Your task to perform on an android device: clear all cookies in the chrome app Image 0: 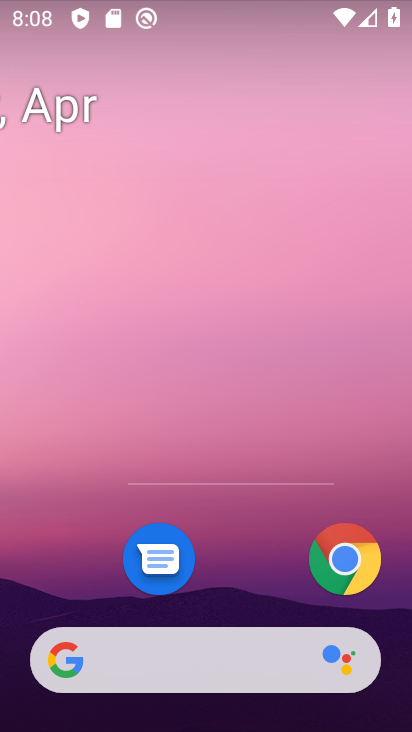
Step 0: drag from (187, 699) to (199, 157)
Your task to perform on an android device: clear all cookies in the chrome app Image 1: 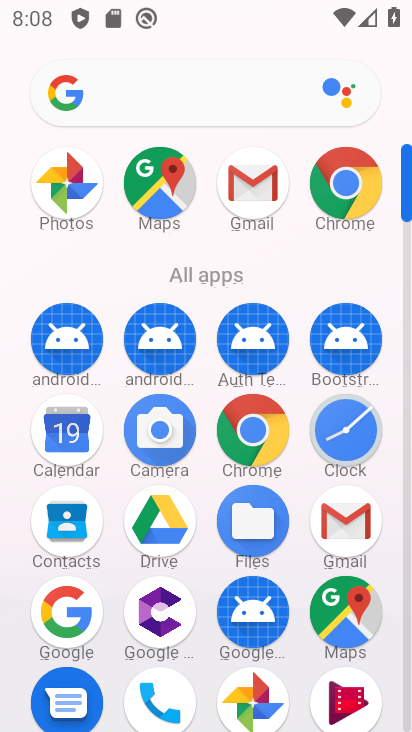
Step 1: click (347, 197)
Your task to perform on an android device: clear all cookies in the chrome app Image 2: 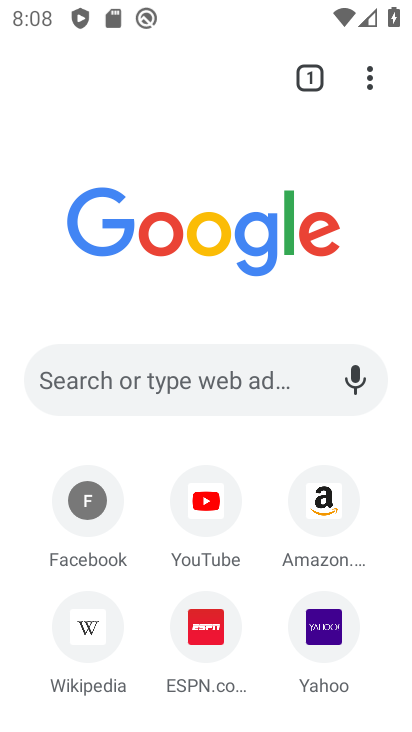
Step 2: click (369, 77)
Your task to perform on an android device: clear all cookies in the chrome app Image 3: 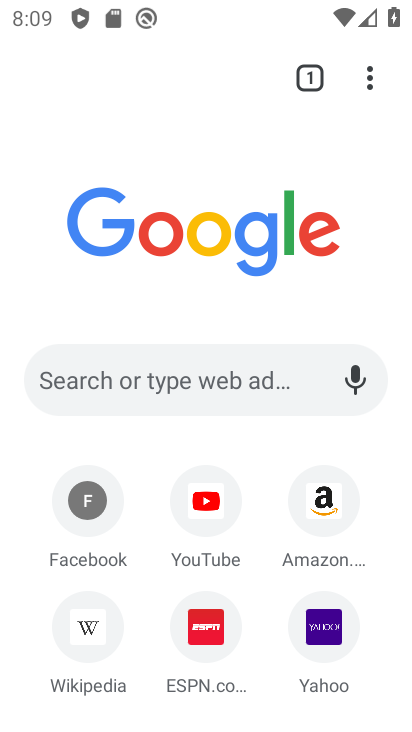
Step 3: click (370, 77)
Your task to perform on an android device: clear all cookies in the chrome app Image 4: 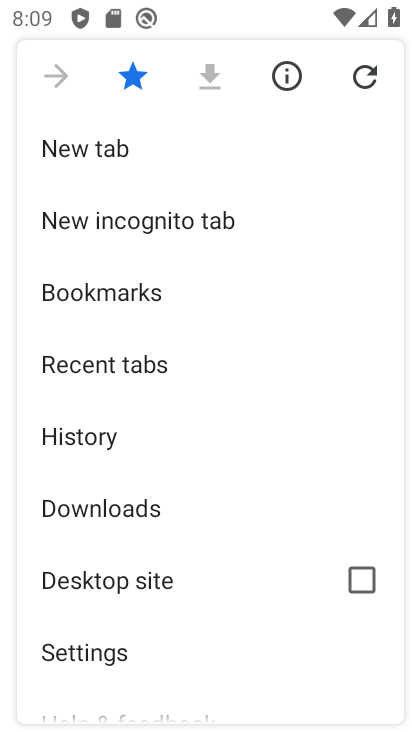
Step 4: click (106, 431)
Your task to perform on an android device: clear all cookies in the chrome app Image 5: 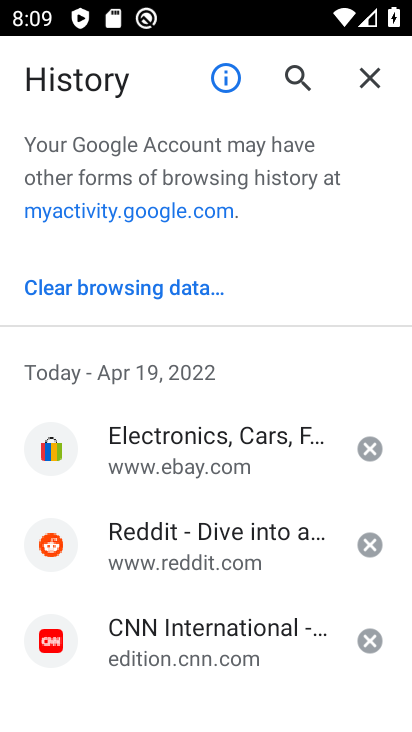
Step 5: click (112, 294)
Your task to perform on an android device: clear all cookies in the chrome app Image 6: 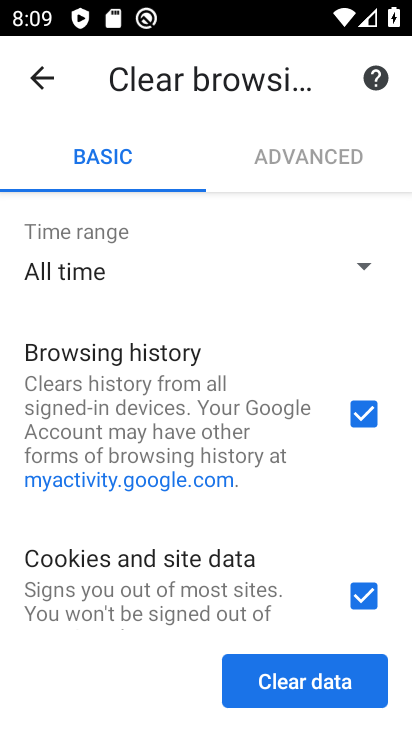
Step 6: click (357, 421)
Your task to perform on an android device: clear all cookies in the chrome app Image 7: 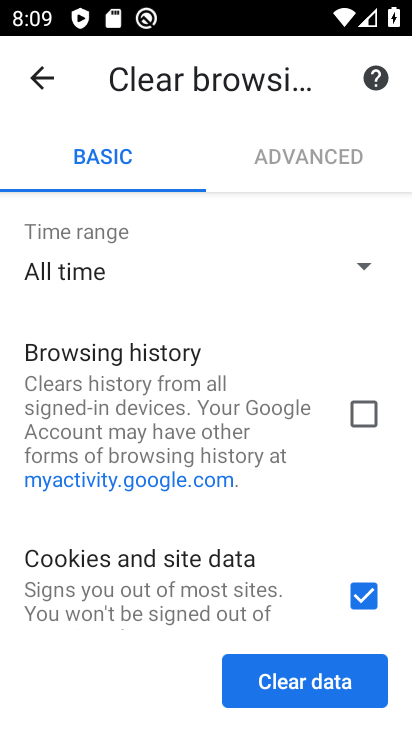
Step 7: click (287, 680)
Your task to perform on an android device: clear all cookies in the chrome app Image 8: 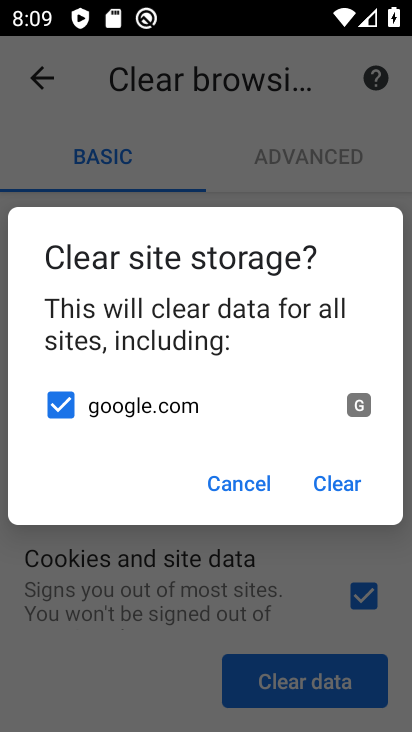
Step 8: task complete